Your task to perform on an android device: find snoozed emails in the gmail app Image 0: 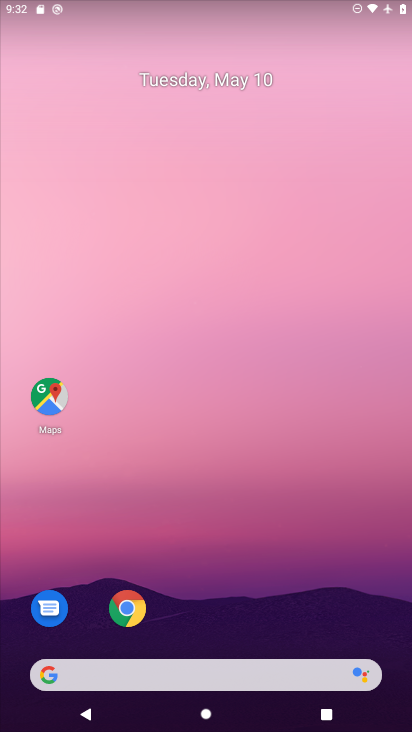
Step 0: drag from (253, 477) to (301, 181)
Your task to perform on an android device: find snoozed emails in the gmail app Image 1: 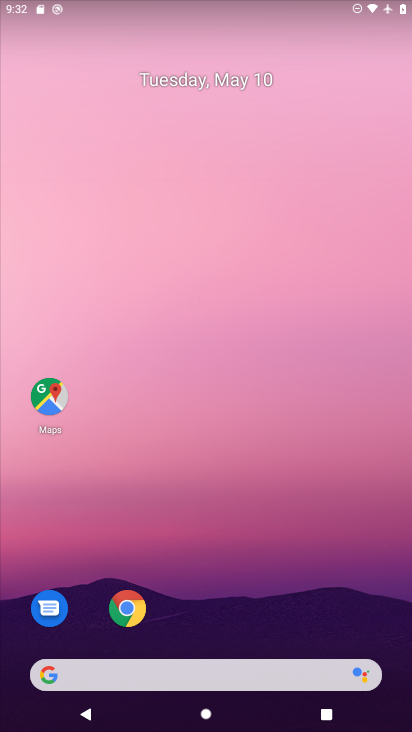
Step 1: drag from (216, 633) to (255, 224)
Your task to perform on an android device: find snoozed emails in the gmail app Image 2: 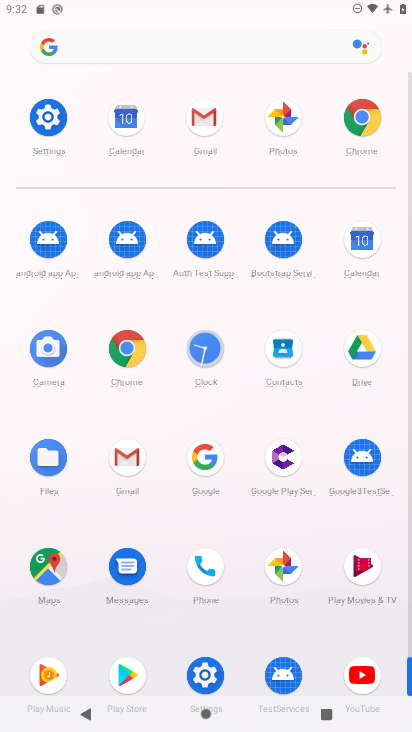
Step 2: click (194, 110)
Your task to perform on an android device: find snoozed emails in the gmail app Image 3: 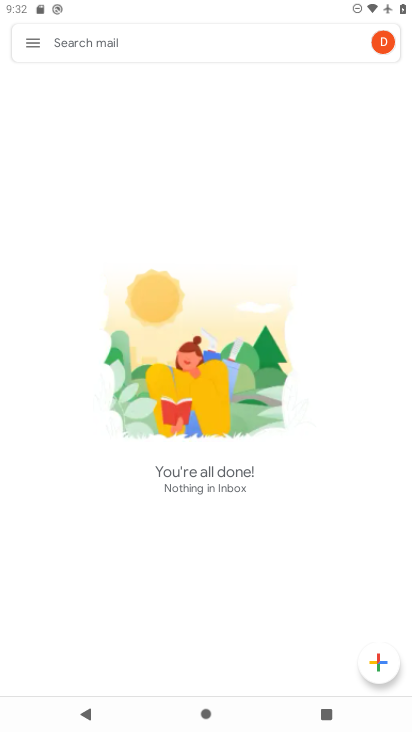
Step 3: click (30, 41)
Your task to perform on an android device: find snoozed emails in the gmail app Image 4: 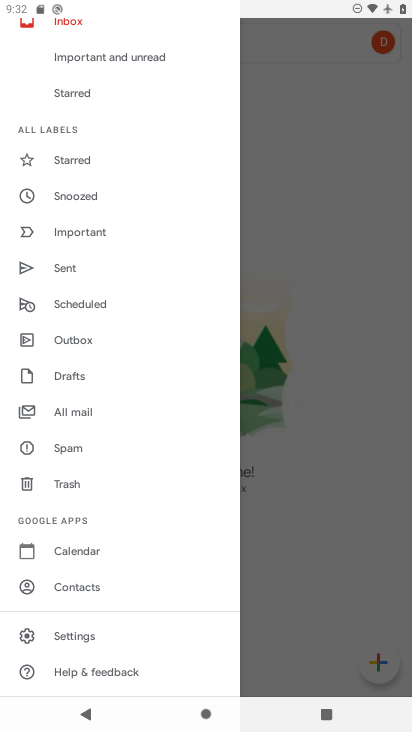
Step 4: click (82, 192)
Your task to perform on an android device: find snoozed emails in the gmail app Image 5: 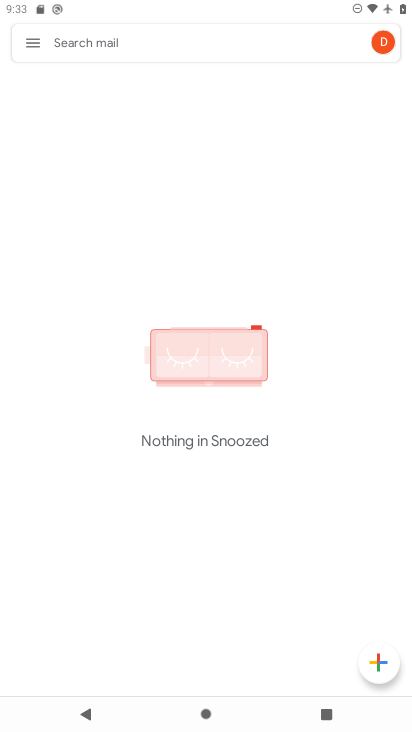
Step 5: task complete